Your task to perform on an android device: Go to battery settings Image 0: 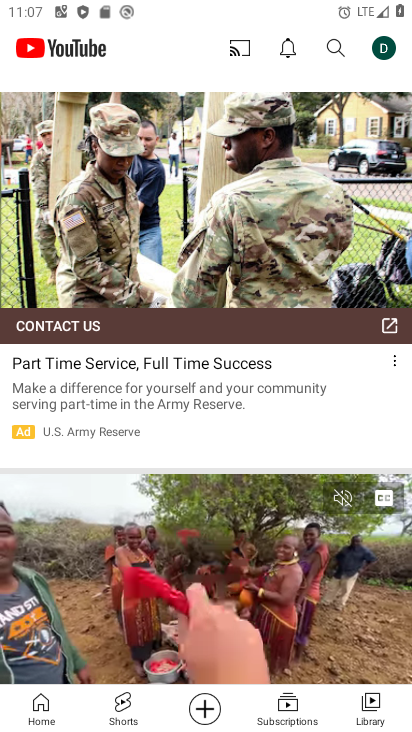
Step 0: press home button
Your task to perform on an android device: Go to battery settings Image 1: 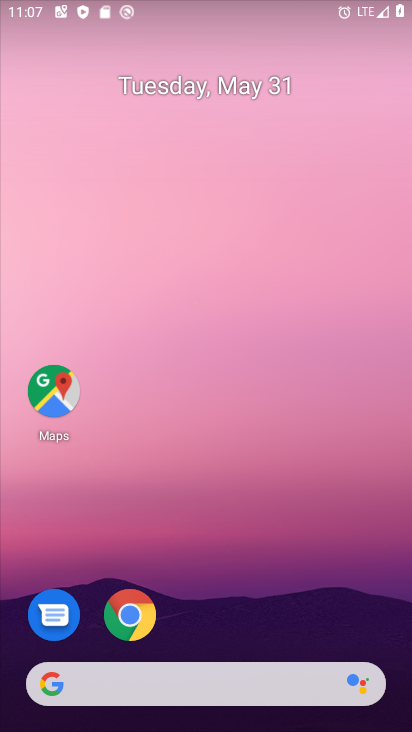
Step 1: drag from (309, 569) to (205, 3)
Your task to perform on an android device: Go to battery settings Image 2: 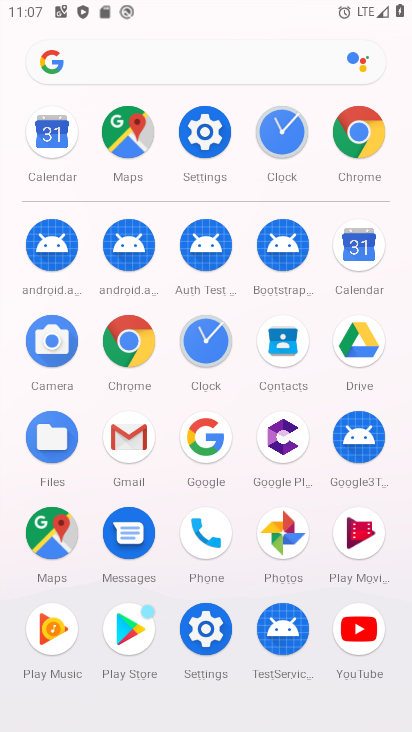
Step 2: click (208, 137)
Your task to perform on an android device: Go to battery settings Image 3: 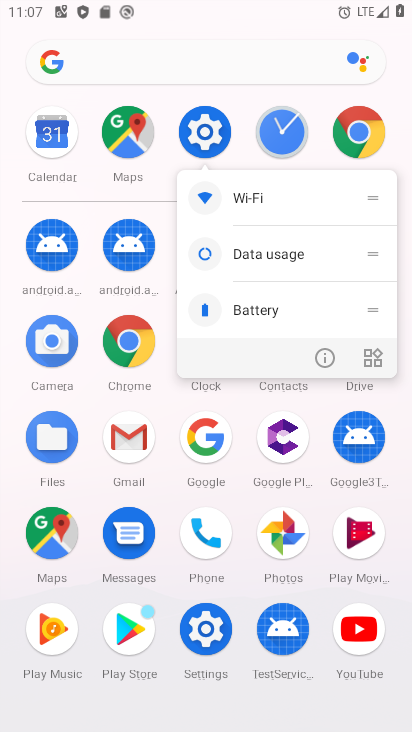
Step 3: click (225, 136)
Your task to perform on an android device: Go to battery settings Image 4: 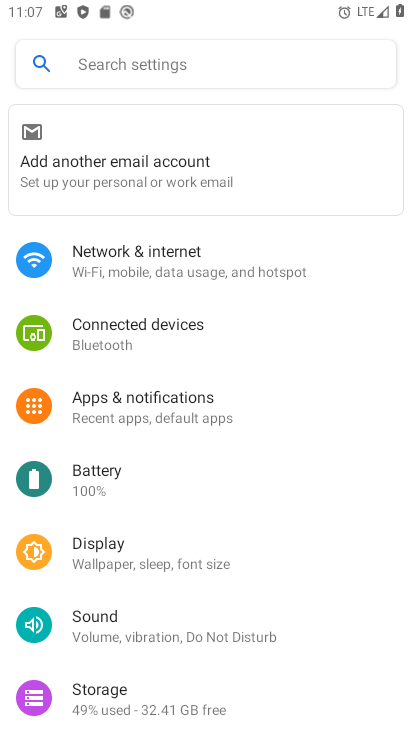
Step 4: drag from (225, 661) to (196, 177)
Your task to perform on an android device: Go to battery settings Image 5: 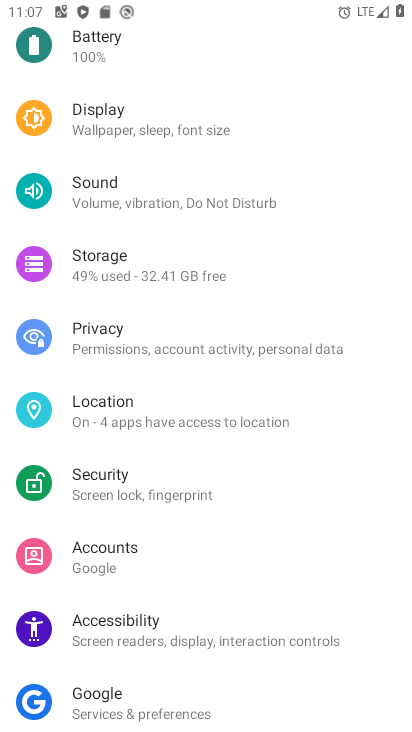
Step 5: drag from (261, 634) to (317, 45)
Your task to perform on an android device: Go to battery settings Image 6: 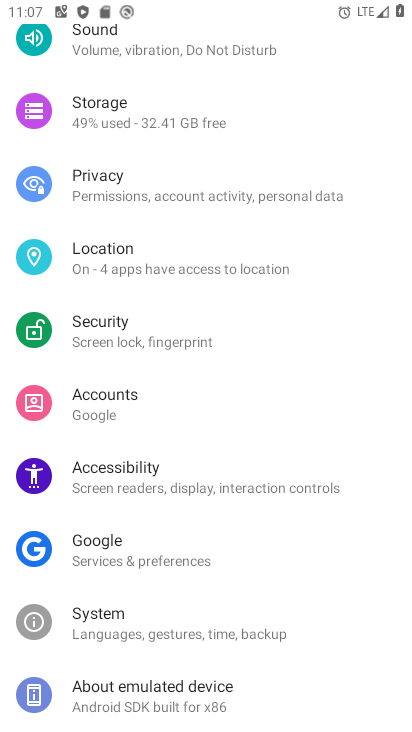
Step 6: drag from (270, 321) to (345, 727)
Your task to perform on an android device: Go to battery settings Image 7: 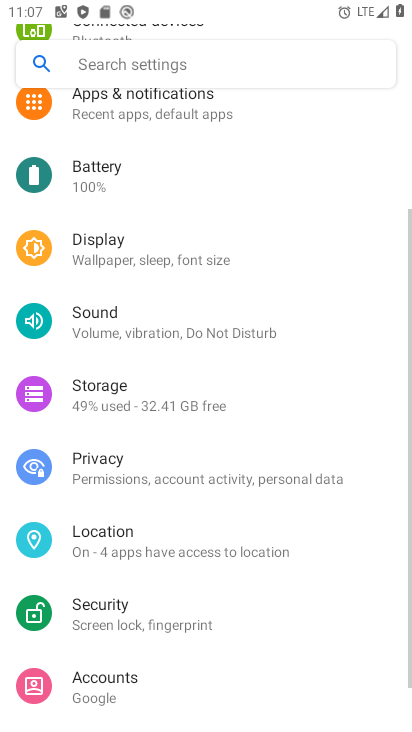
Step 7: drag from (278, 264) to (271, 720)
Your task to perform on an android device: Go to battery settings Image 8: 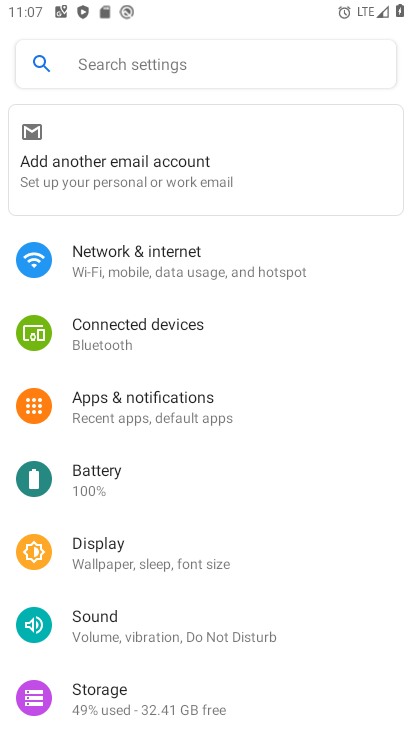
Step 8: click (101, 481)
Your task to perform on an android device: Go to battery settings Image 9: 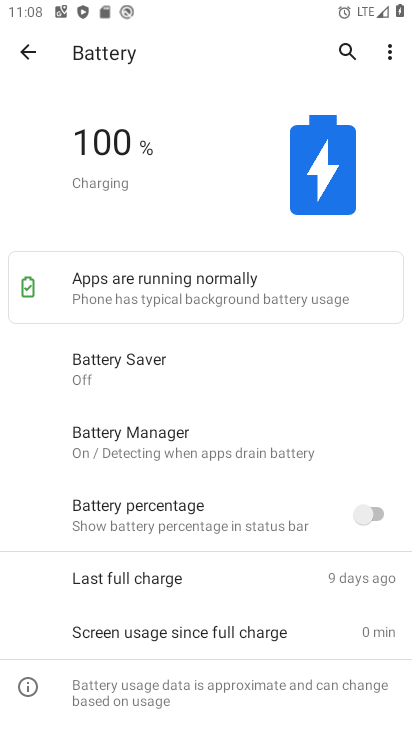
Step 9: task complete